Your task to perform on an android device: Empty the shopping cart on walmart.com. Search for "razer deathadder" on walmart.com, select the first entry, and add it to the cart. Image 0: 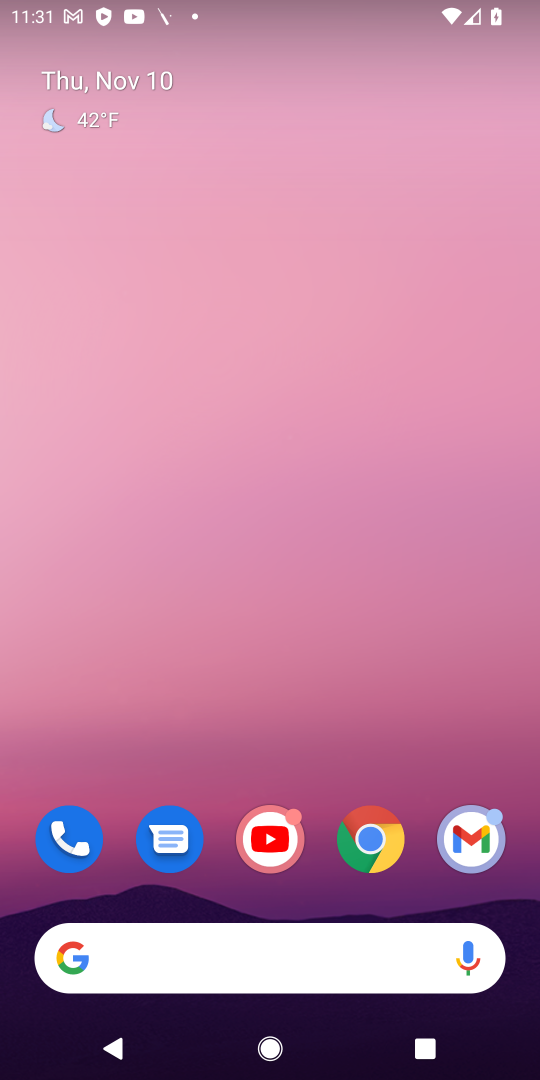
Step 0: click (362, 839)
Your task to perform on an android device: Empty the shopping cart on walmart.com. Search for "razer deathadder" on walmart.com, select the first entry, and add it to the cart. Image 1: 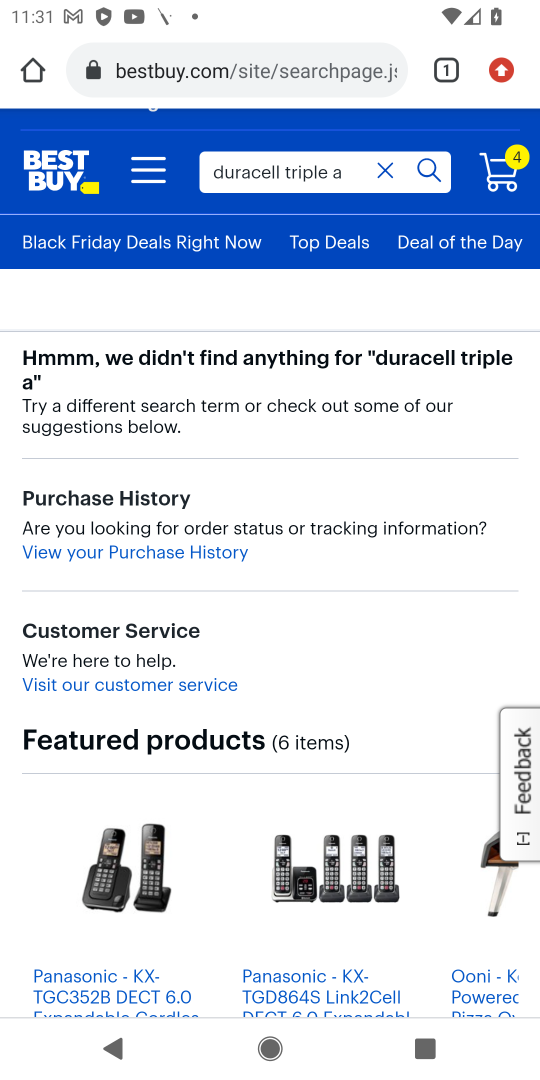
Step 1: click (205, 56)
Your task to perform on an android device: Empty the shopping cart on walmart.com. Search for "razer deathadder" on walmart.com, select the first entry, and add it to the cart. Image 2: 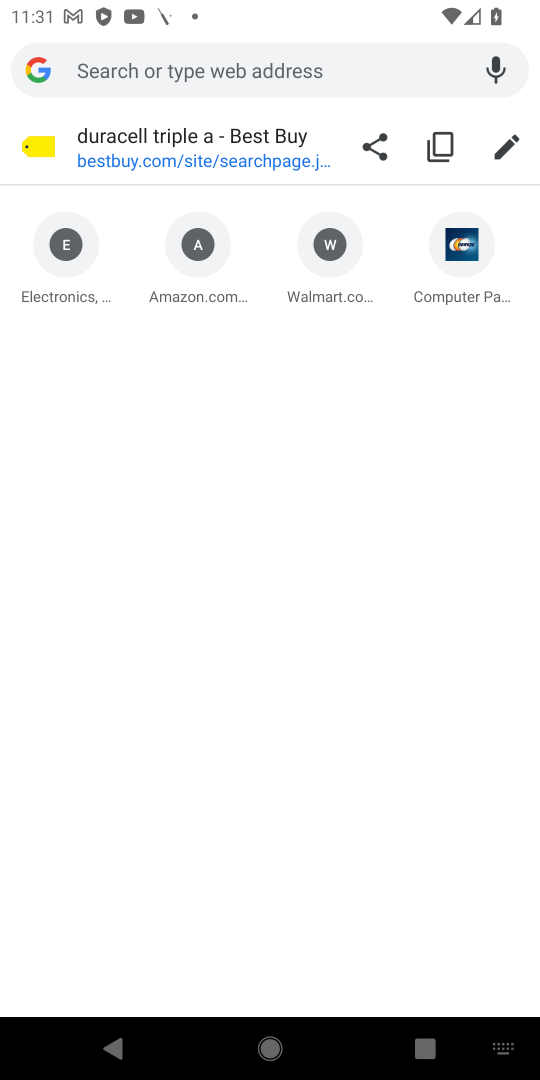
Step 2: click (321, 260)
Your task to perform on an android device: Empty the shopping cart on walmart.com. Search for "razer deathadder" on walmart.com, select the first entry, and add it to the cart. Image 3: 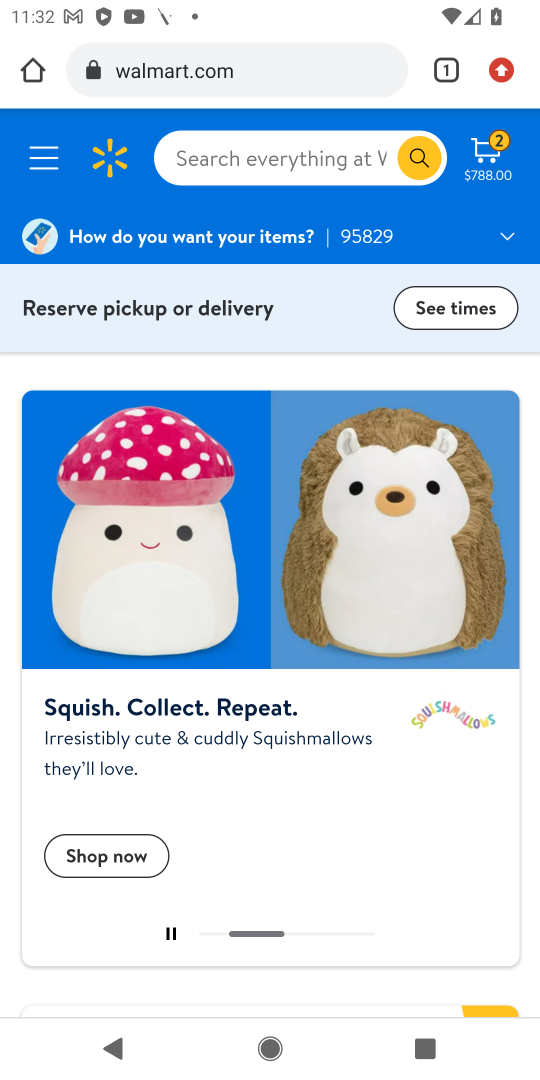
Step 3: click (497, 154)
Your task to perform on an android device: Empty the shopping cart on walmart.com. Search for "razer deathadder" on walmart.com, select the first entry, and add it to the cart. Image 4: 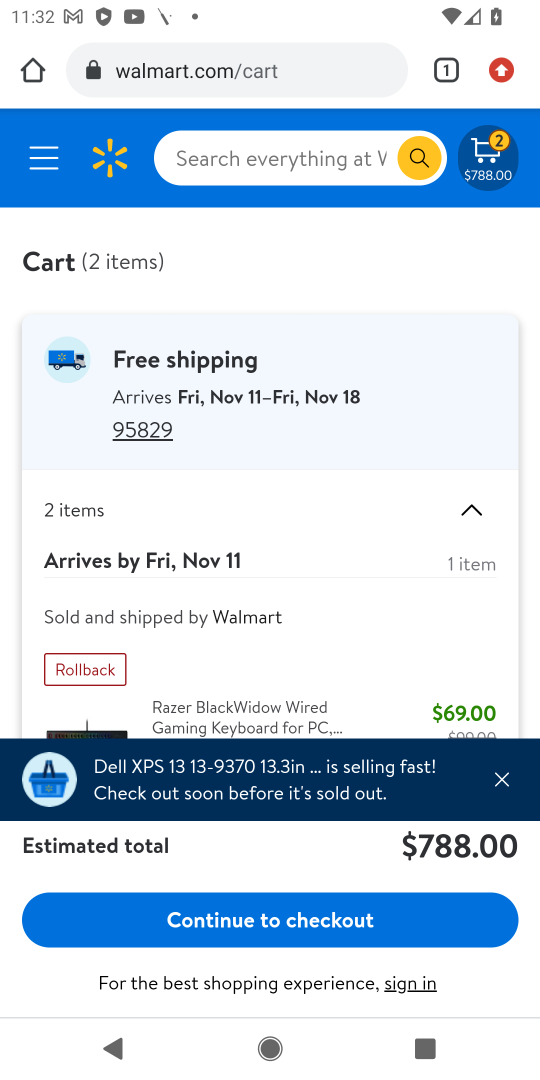
Step 4: click (501, 780)
Your task to perform on an android device: Empty the shopping cart on walmart.com. Search for "razer deathadder" on walmart.com, select the first entry, and add it to the cart. Image 5: 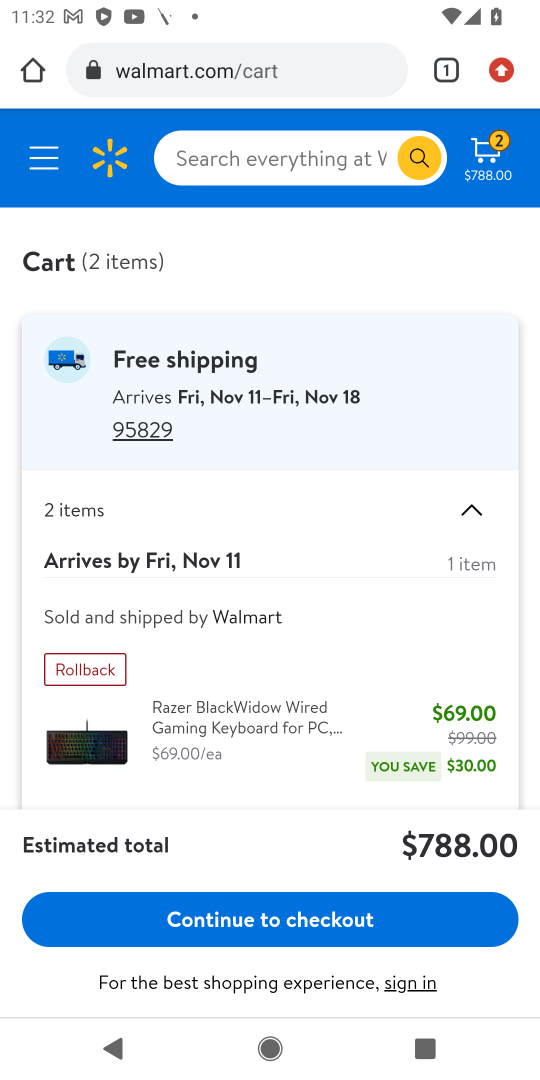
Step 5: drag from (243, 690) to (293, 324)
Your task to perform on an android device: Empty the shopping cart on walmart.com. Search for "razer deathadder" on walmart.com, select the first entry, and add it to the cart. Image 6: 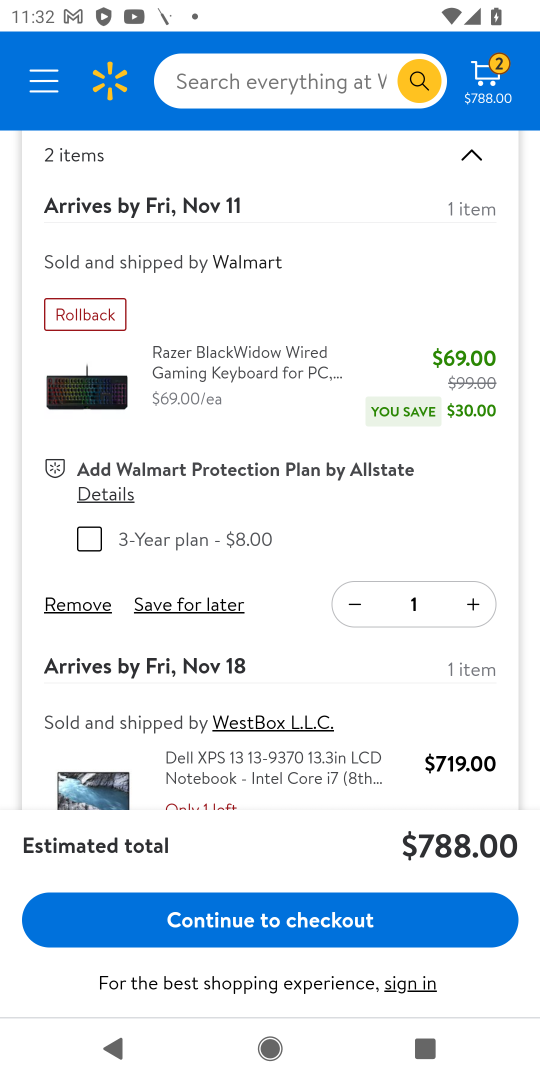
Step 6: click (84, 604)
Your task to perform on an android device: Empty the shopping cart on walmart.com. Search for "razer deathadder" on walmart.com, select the first entry, and add it to the cart. Image 7: 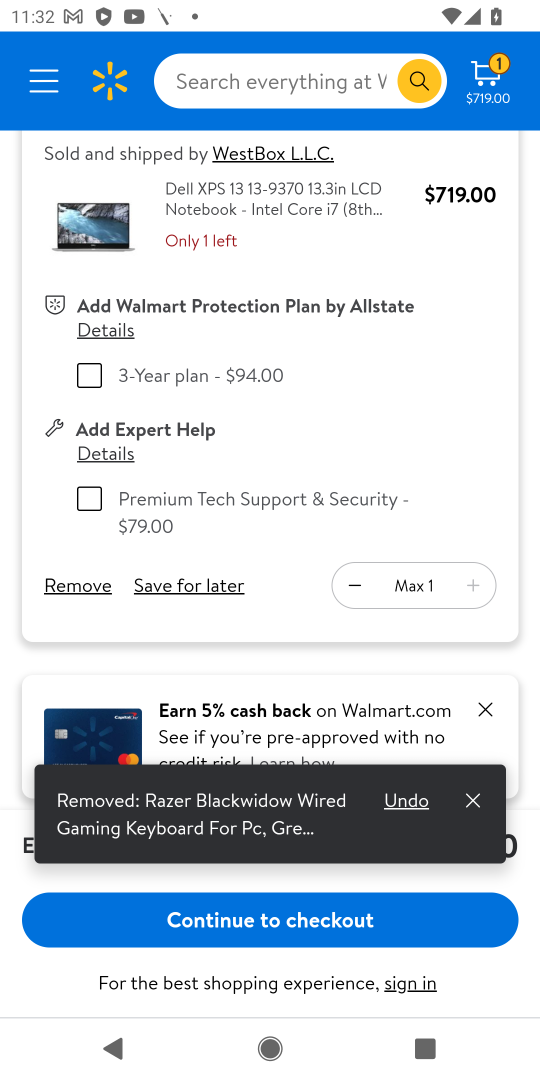
Step 7: click (68, 584)
Your task to perform on an android device: Empty the shopping cart on walmart.com. Search for "razer deathadder" on walmart.com, select the first entry, and add it to the cart. Image 8: 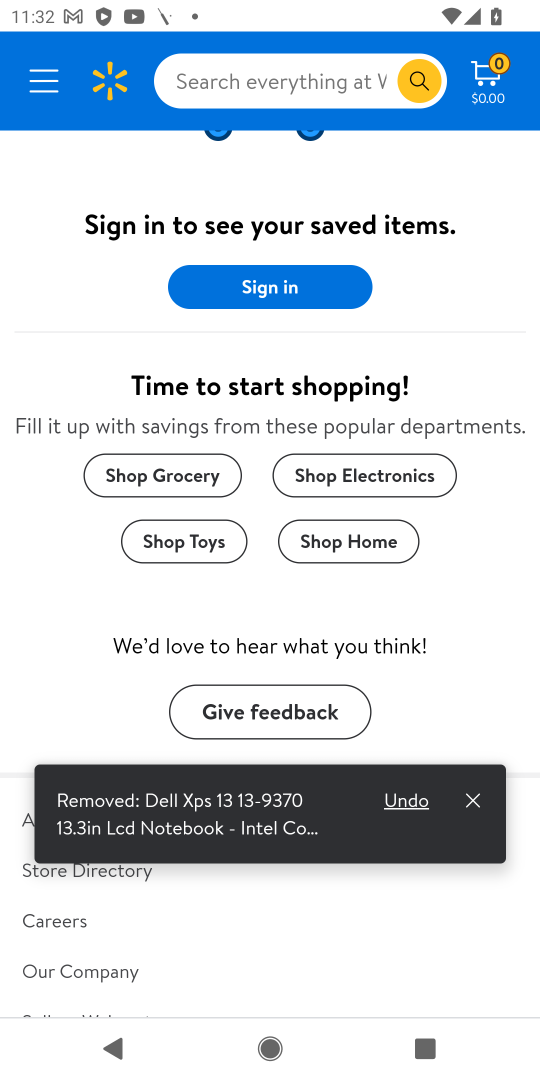
Step 8: click (299, 79)
Your task to perform on an android device: Empty the shopping cart on walmart.com. Search for "razer deathadder" on walmart.com, select the first entry, and add it to the cart. Image 9: 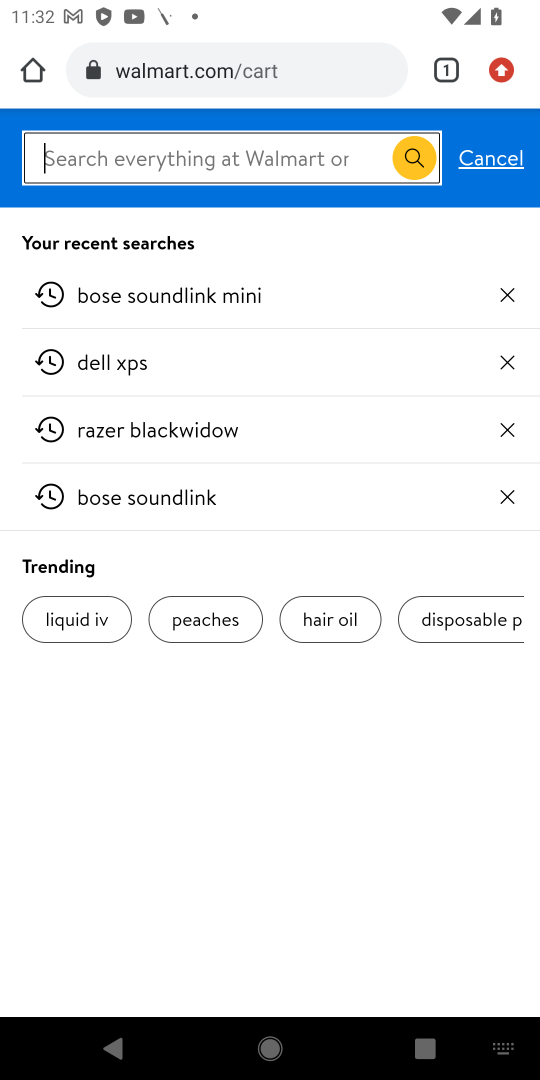
Step 9: type "razer deathadder"
Your task to perform on an android device: Empty the shopping cart on walmart.com. Search for "razer deathadder" on walmart.com, select the first entry, and add it to the cart. Image 10: 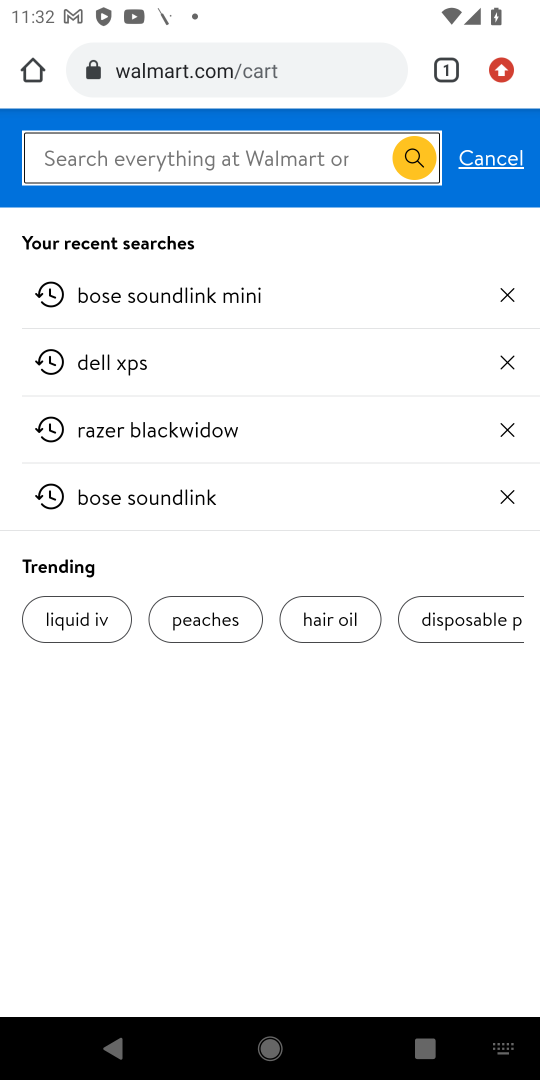
Step 10: press enter
Your task to perform on an android device: Empty the shopping cart on walmart.com. Search for "razer deathadder" on walmart.com, select the first entry, and add it to the cart. Image 11: 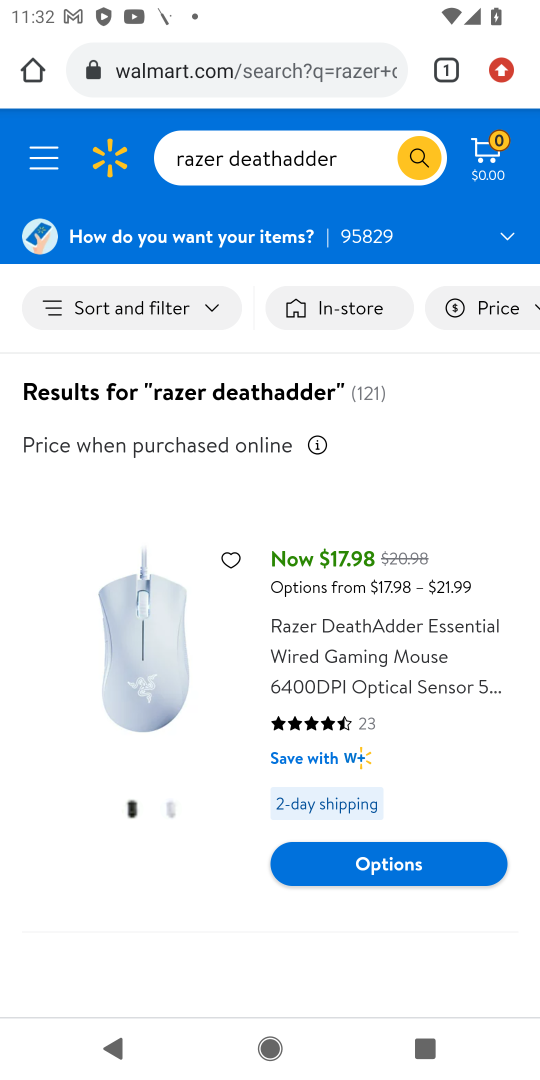
Step 11: click (132, 661)
Your task to perform on an android device: Empty the shopping cart on walmart.com. Search for "razer deathadder" on walmart.com, select the first entry, and add it to the cart. Image 12: 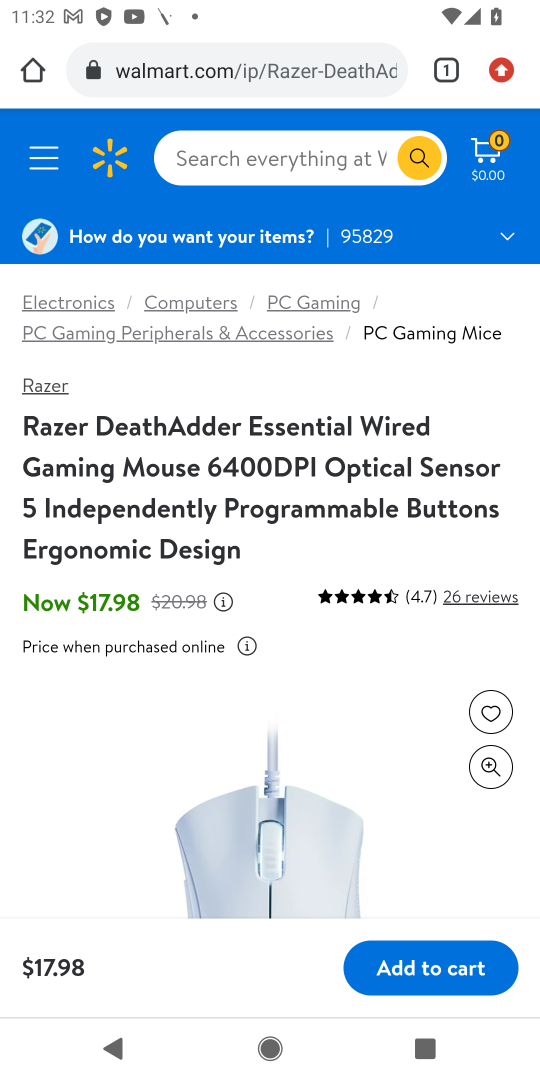
Step 12: click (452, 973)
Your task to perform on an android device: Empty the shopping cart on walmart.com. Search for "razer deathadder" on walmart.com, select the first entry, and add it to the cart. Image 13: 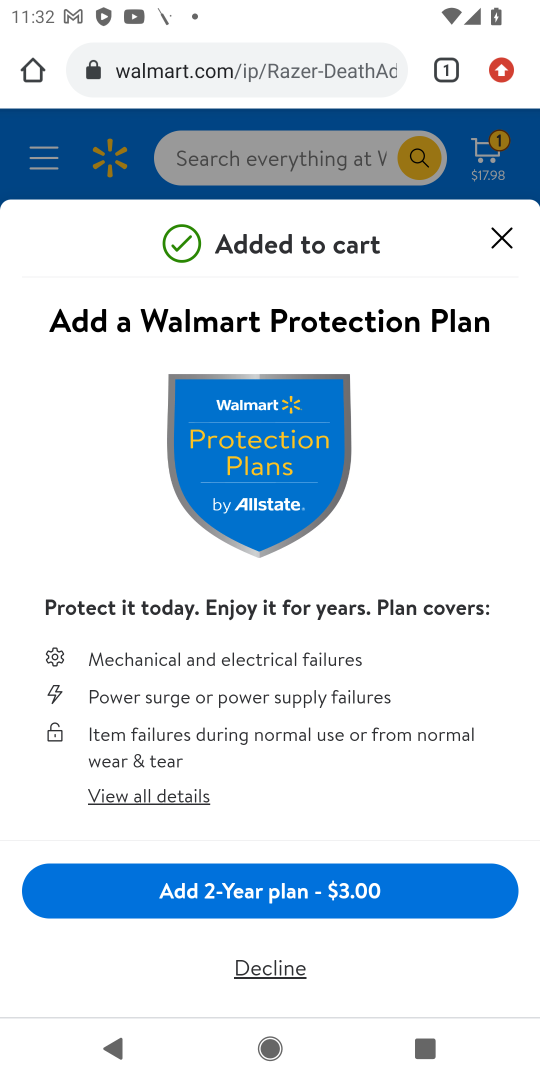
Step 13: click (500, 246)
Your task to perform on an android device: Empty the shopping cart on walmart.com. Search for "razer deathadder" on walmart.com, select the first entry, and add it to the cart. Image 14: 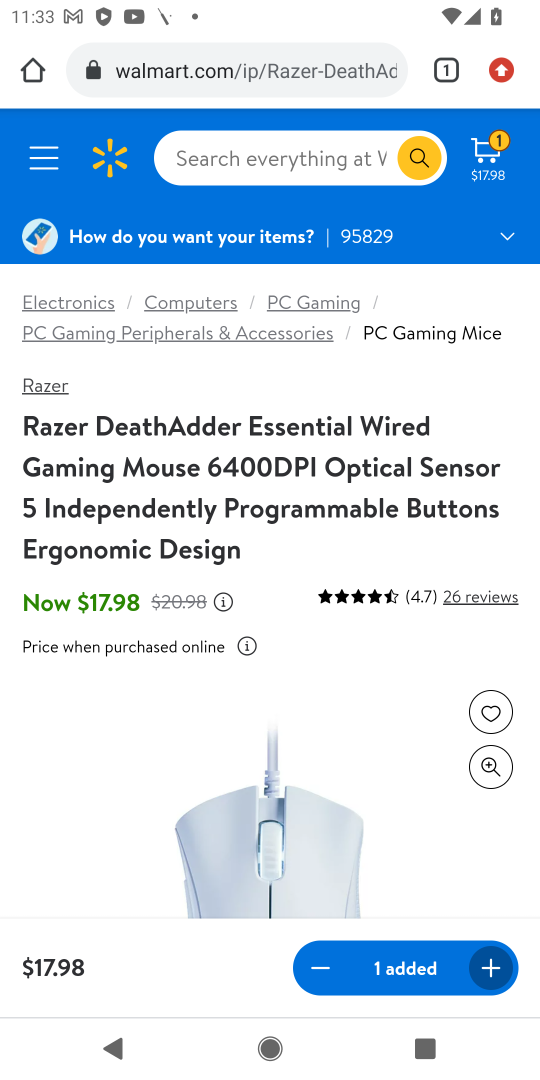
Step 14: task complete